Your task to perform on an android device: What's the weather going to be tomorrow? Image 0: 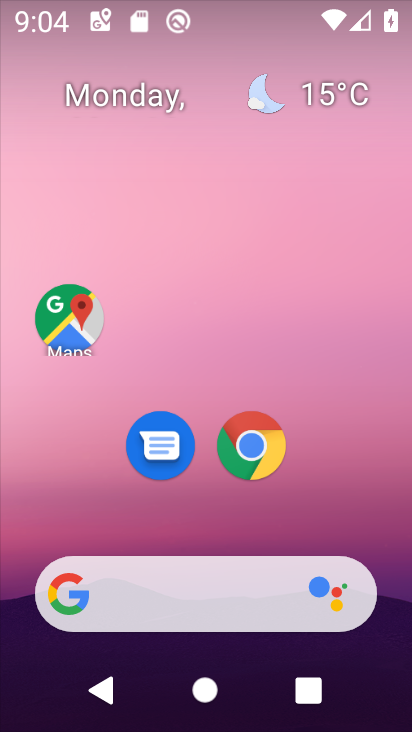
Step 0: click (326, 93)
Your task to perform on an android device: What's the weather going to be tomorrow? Image 1: 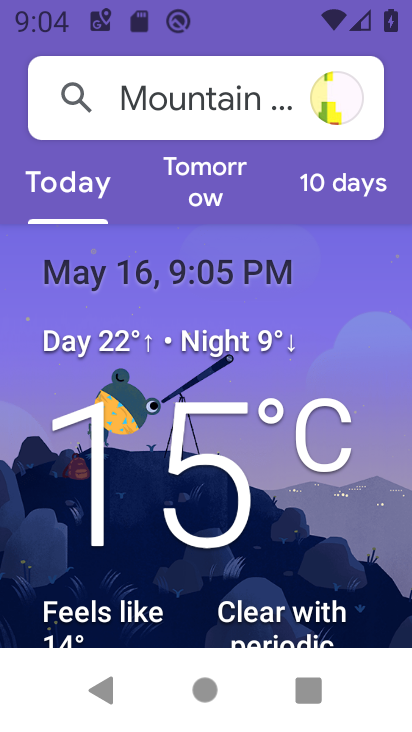
Step 1: click (209, 176)
Your task to perform on an android device: What's the weather going to be tomorrow? Image 2: 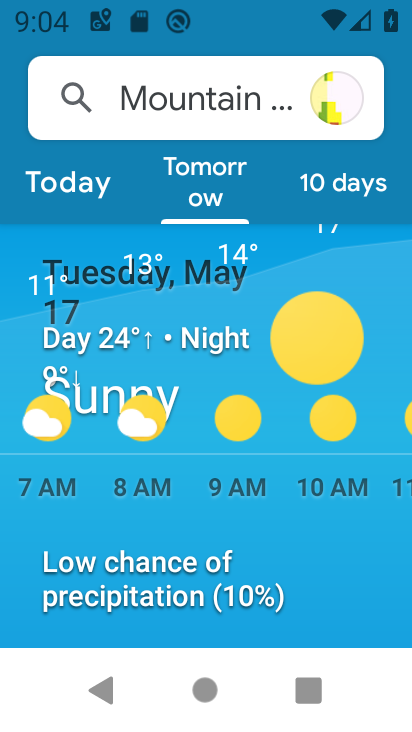
Step 2: task complete